Your task to perform on an android device: manage bookmarks in the chrome app Image 0: 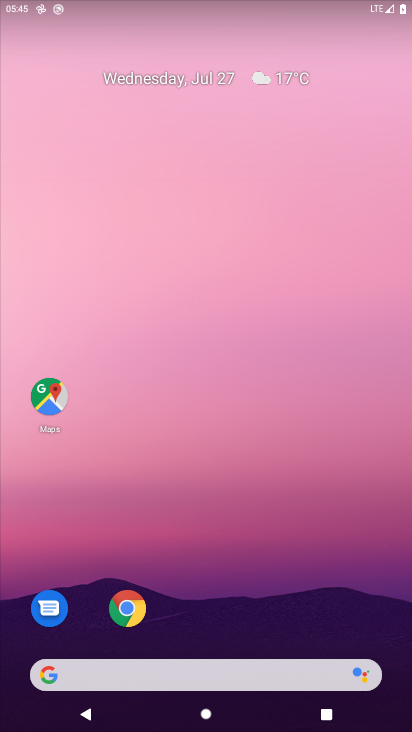
Step 0: press home button
Your task to perform on an android device: manage bookmarks in the chrome app Image 1: 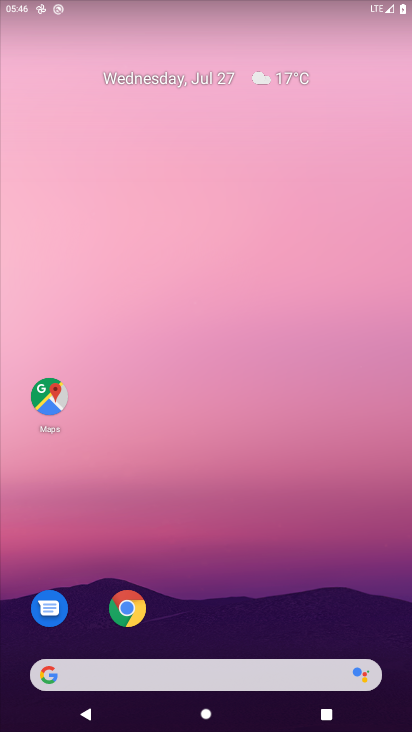
Step 1: drag from (192, 622) to (205, 81)
Your task to perform on an android device: manage bookmarks in the chrome app Image 2: 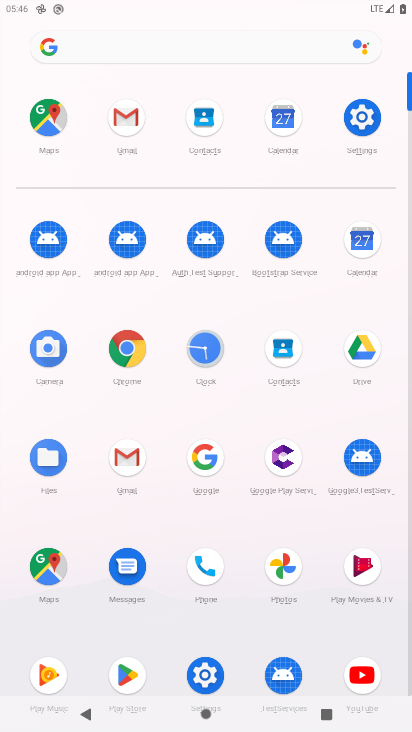
Step 2: click (128, 348)
Your task to perform on an android device: manage bookmarks in the chrome app Image 3: 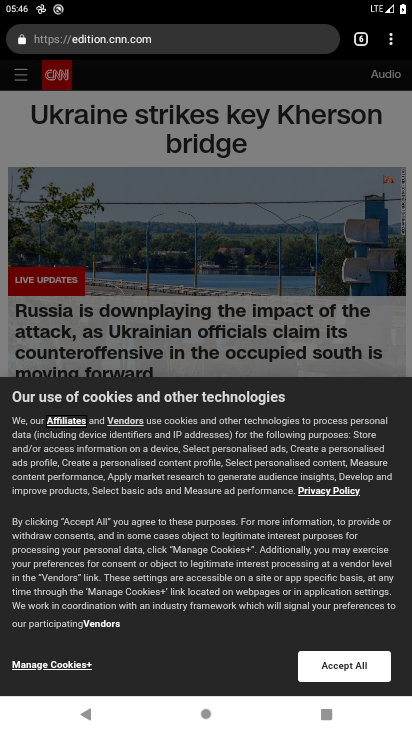
Step 3: click (388, 46)
Your task to perform on an android device: manage bookmarks in the chrome app Image 4: 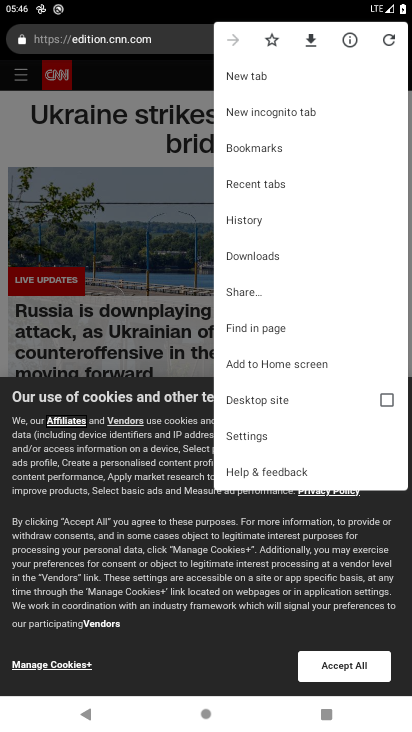
Step 4: click (249, 152)
Your task to perform on an android device: manage bookmarks in the chrome app Image 5: 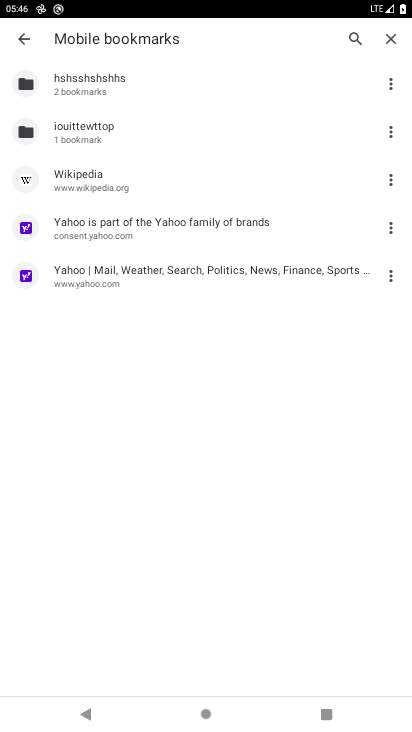
Step 5: click (397, 182)
Your task to perform on an android device: manage bookmarks in the chrome app Image 6: 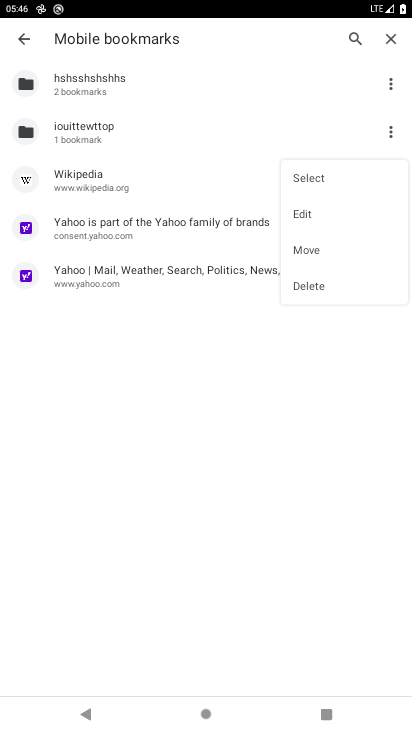
Step 6: click (303, 218)
Your task to perform on an android device: manage bookmarks in the chrome app Image 7: 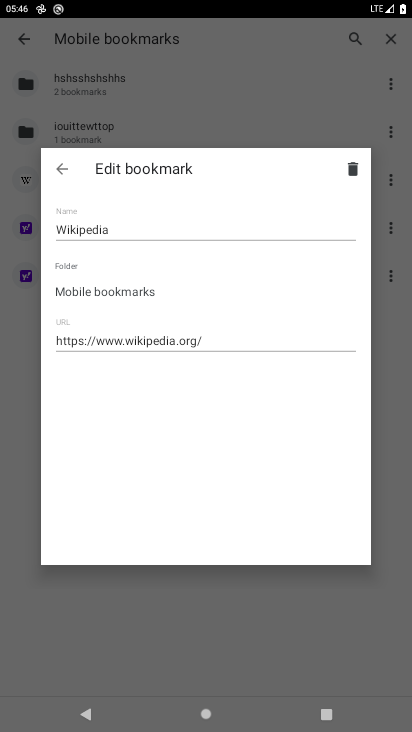
Step 7: task complete